Your task to perform on an android device: turn off translation in the chrome app Image 0: 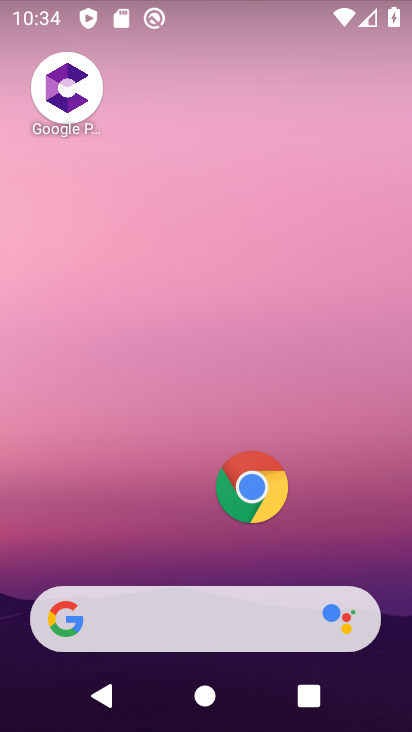
Step 0: click (256, 470)
Your task to perform on an android device: turn off translation in the chrome app Image 1: 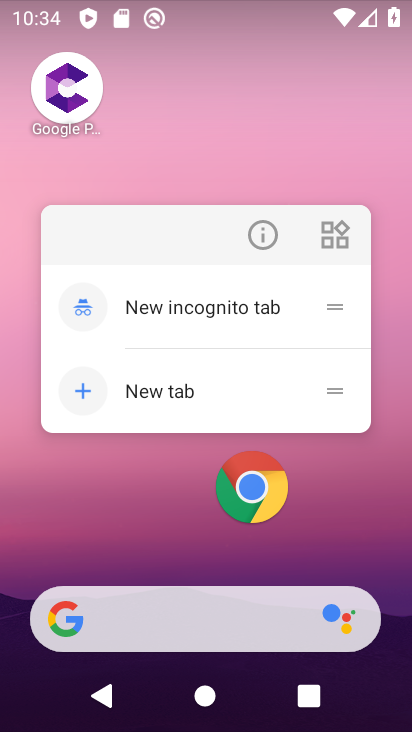
Step 1: click (239, 500)
Your task to perform on an android device: turn off translation in the chrome app Image 2: 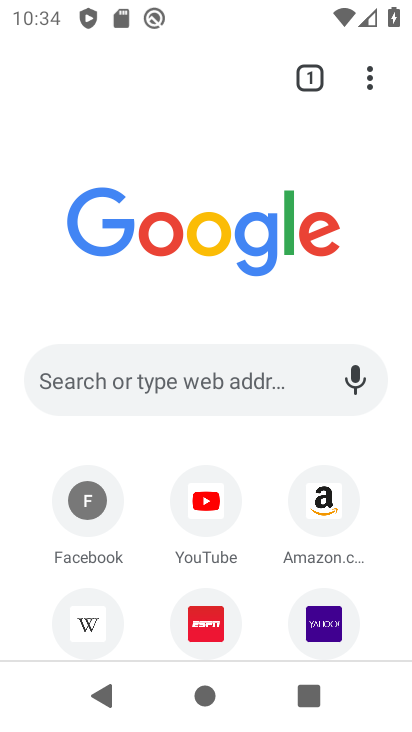
Step 2: click (379, 80)
Your task to perform on an android device: turn off translation in the chrome app Image 3: 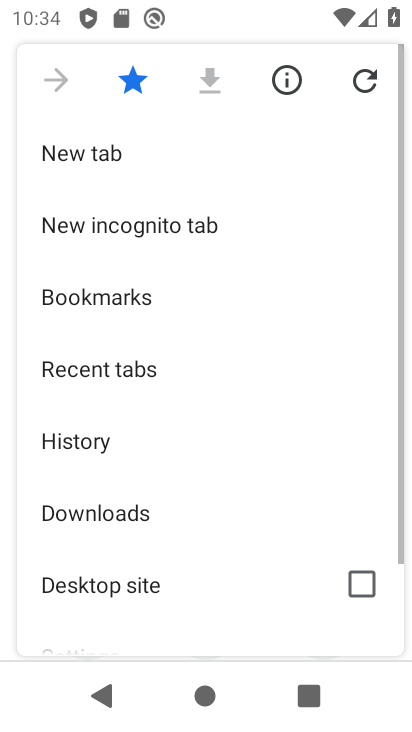
Step 3: drag from (182, 539) to (251, 30)
Your task to perform on an android device: turn off translation in the chrome app Image 4: 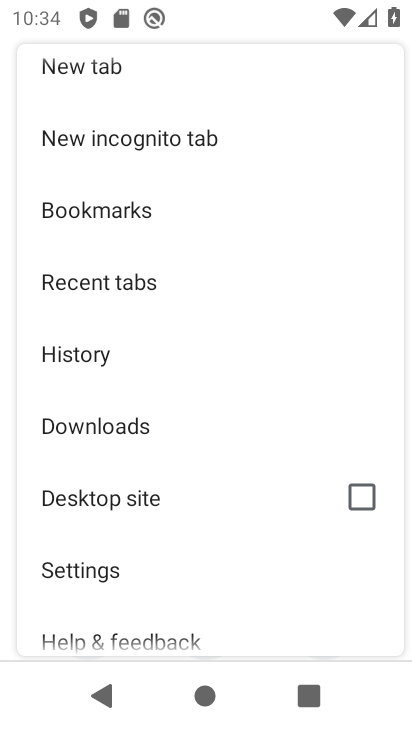
Step 4: click (99, 559)
Your task to perform on an android device: turn off translation in the chrome app Image 5: 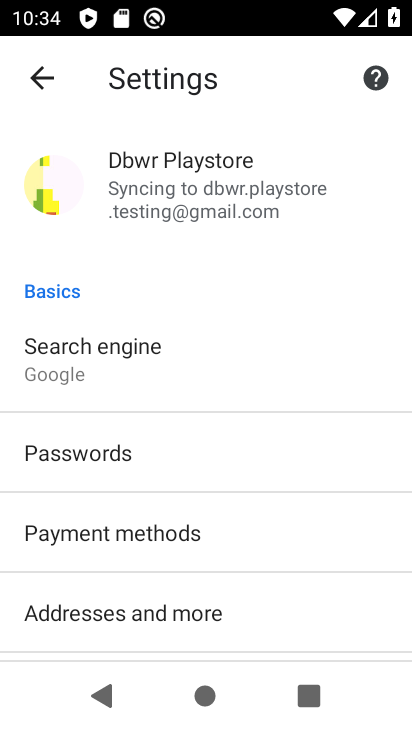
Step 5: drag from (134, 521) to (225, 124)
Your task to perform on an android device: turn off translation in the chrome app Image 6: 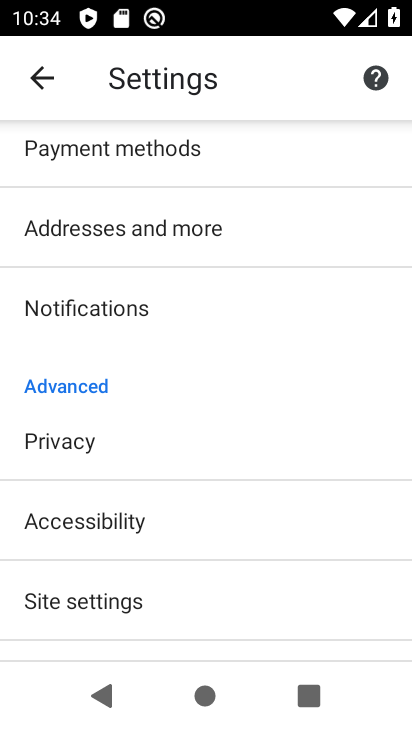
Step 6: drag from (99, 572) to (120, 292)
Your task to perform on an android device: turn off translation in the chrome app Image 7: 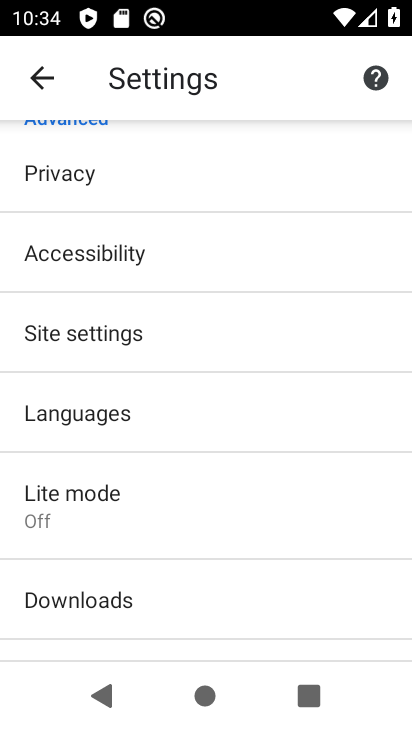
Step 7: click (98, 407)
Your task to perform on an android device: turn off translation in the chrome app Image 8: 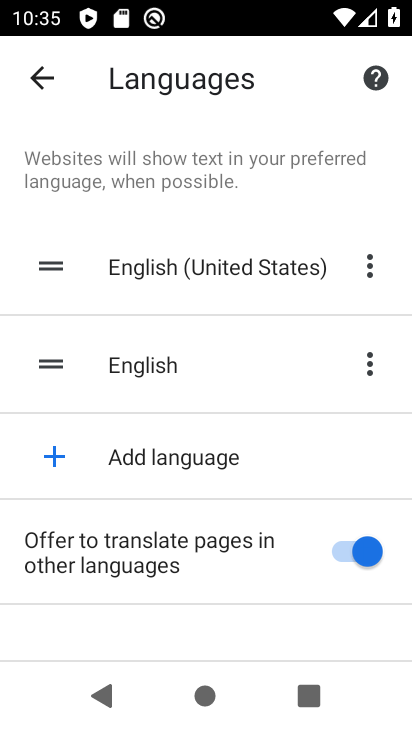
Step 8: click (292, 542)
Your task to perform on an android device: turn off translation in the chrome app Image 9: 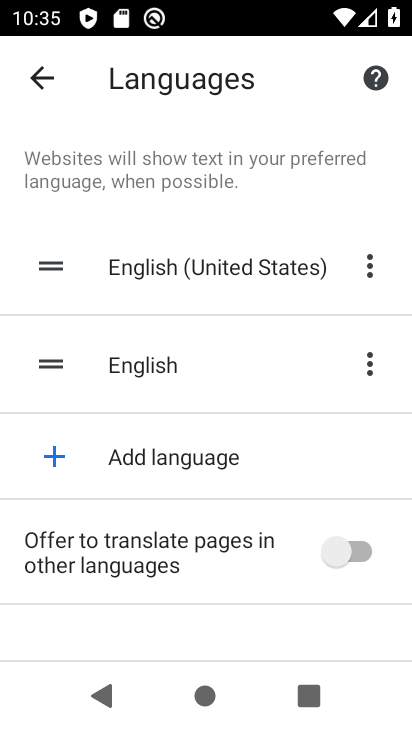
Step 9: task complete